Your task to perform on an android device: What's the news in Chile? Image 0: 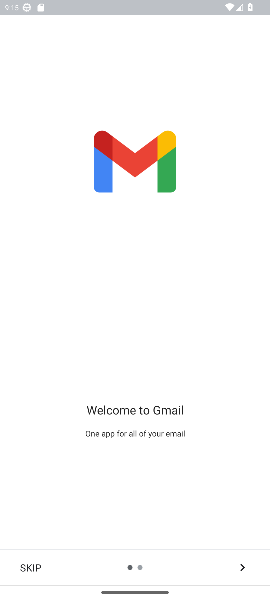
Step 0: press home button
Your task to perform on an android device: What's the news in Chile? Image 1: 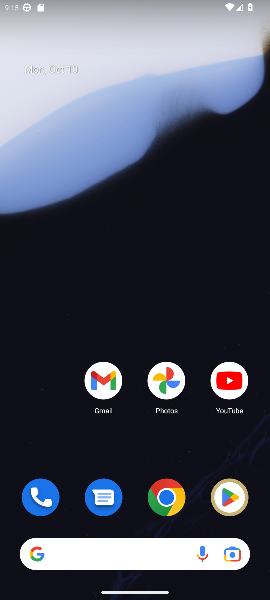
Step 1: drag from (150, 468) to (166, 90)
Your task to perform on an android device: What's the news in Chile? Image 2: 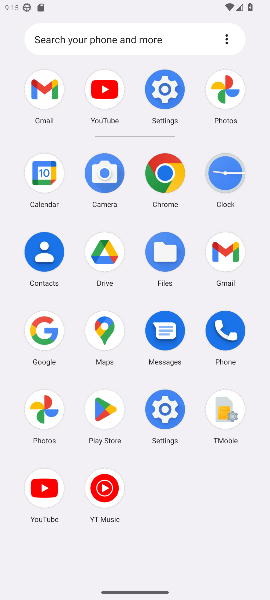
Step 2: click (34, 320)
Your task to perform on an android device: What's the news in Chile? Image 3: 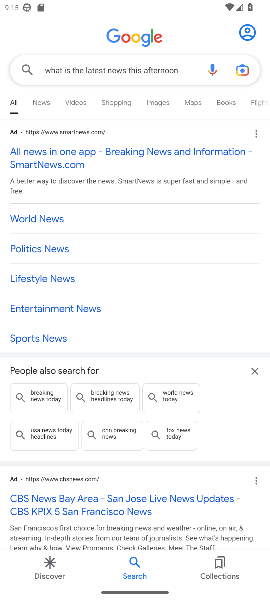
Step 3: click (80, 73)
Your task to perform on an android device: What's the news in Chile? Image 4: 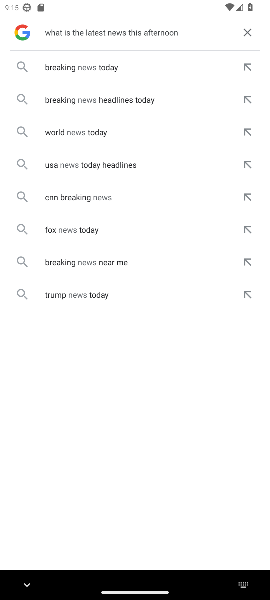
Step 4: click (244, 36)
Your task to perform on an android device: What's the news in Chile? Image 5: 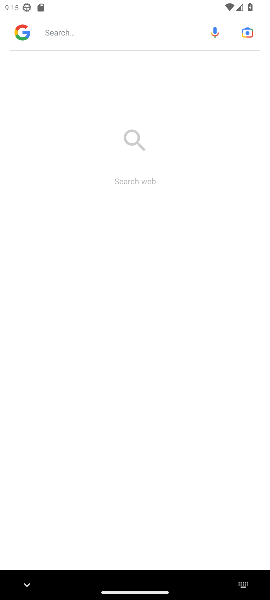
Step 5: click (75, 32)
Your task to perform on an android device: What's the news in Chile? Image 6: 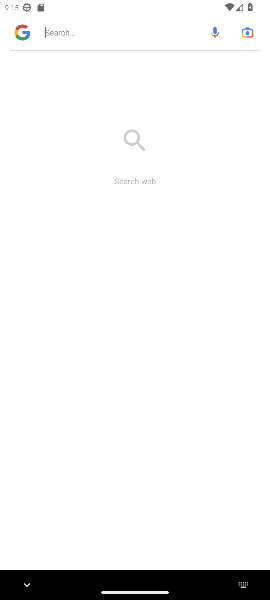
Step 6: type "What's the news in Chile? "
Your task to perform on an android device: What's the news in Chile? Image 7: 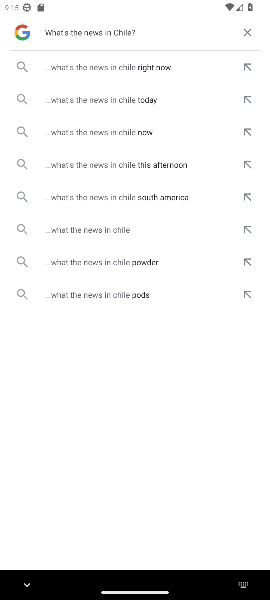
Step 7: click (94, 64)
Your task to perform on an android device: What's the news in Chile? Image 8: 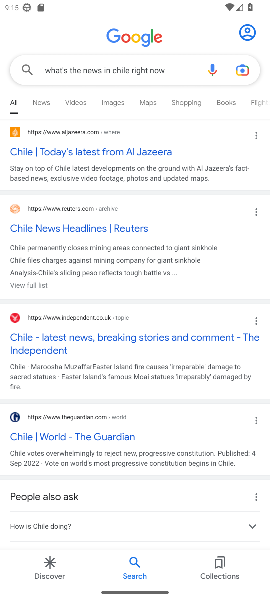
Step 8: click (105, 153)
Your task to perform on an android device: What's the news in Chile? Image 9: 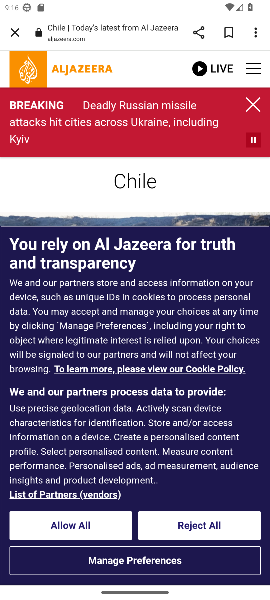
Step 9: click (73, 524)
Your task to perform on an android device: What's the news in Chile? Image 10: 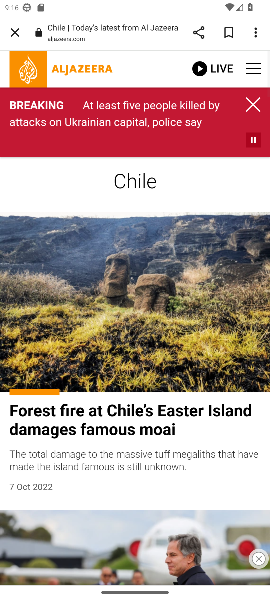
Step 10: drag from (145, 477) to (164, 248)
Your task to perform on an android device: What's the news in Chile? Image 11: 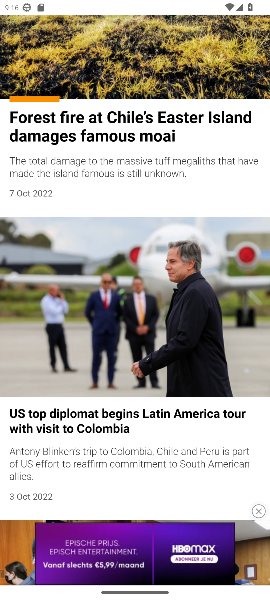
Step 11: drag from (138, 471) to (135, 186)
Your task to perform on an android device: What's the news in Chile? Image 12: 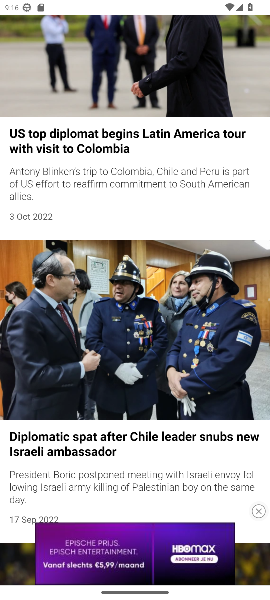
Step 12: click (139, 455)
Your task to perform on an android device: What's the news in Chile? Image 13: 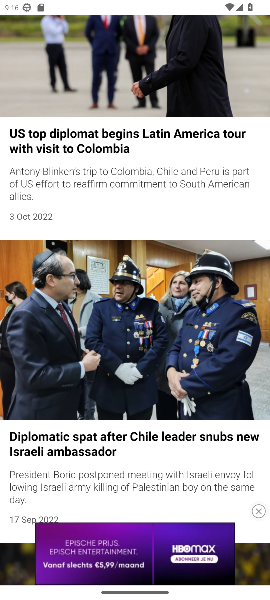
Step 13: task complete